Your task to perform on an android device: Open the phone app and click the voicemail tab. Image 0: 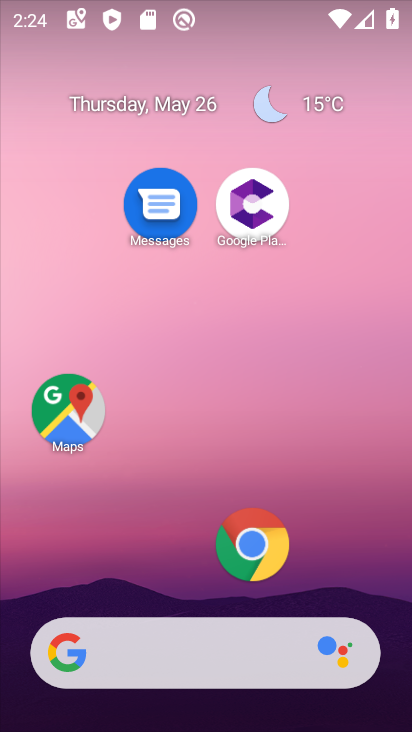
Step 0: drag from (170, 596) to (186, 86)
Your task to perform on an android device: Open the phone app and click the voicemail tab. Image 1: 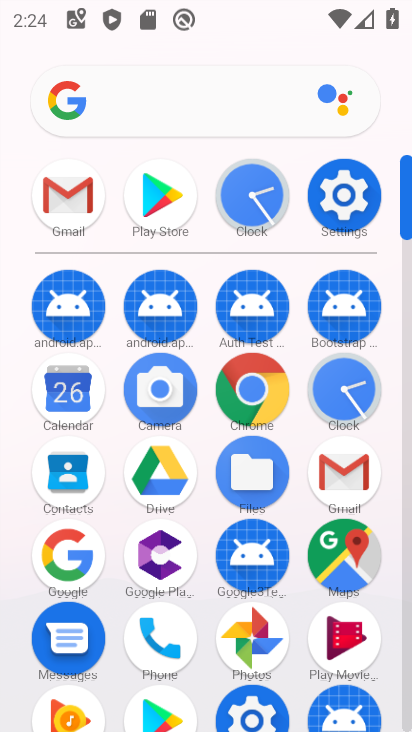
Step 1: click (172, 636)
Your task to perform on an android device: Open the phone app and click the voicemail tab. Image 2: 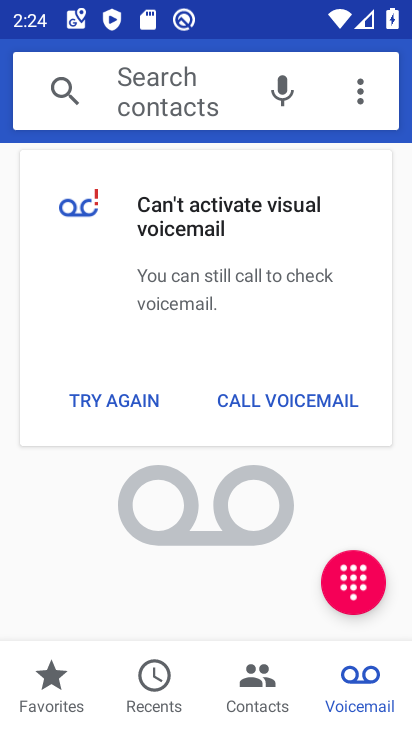
Step 2: task complete